Your task to perform on an android device: open app "Pandora - Music & Podcasts" (install if not already installed) and go to login screen Image 0: 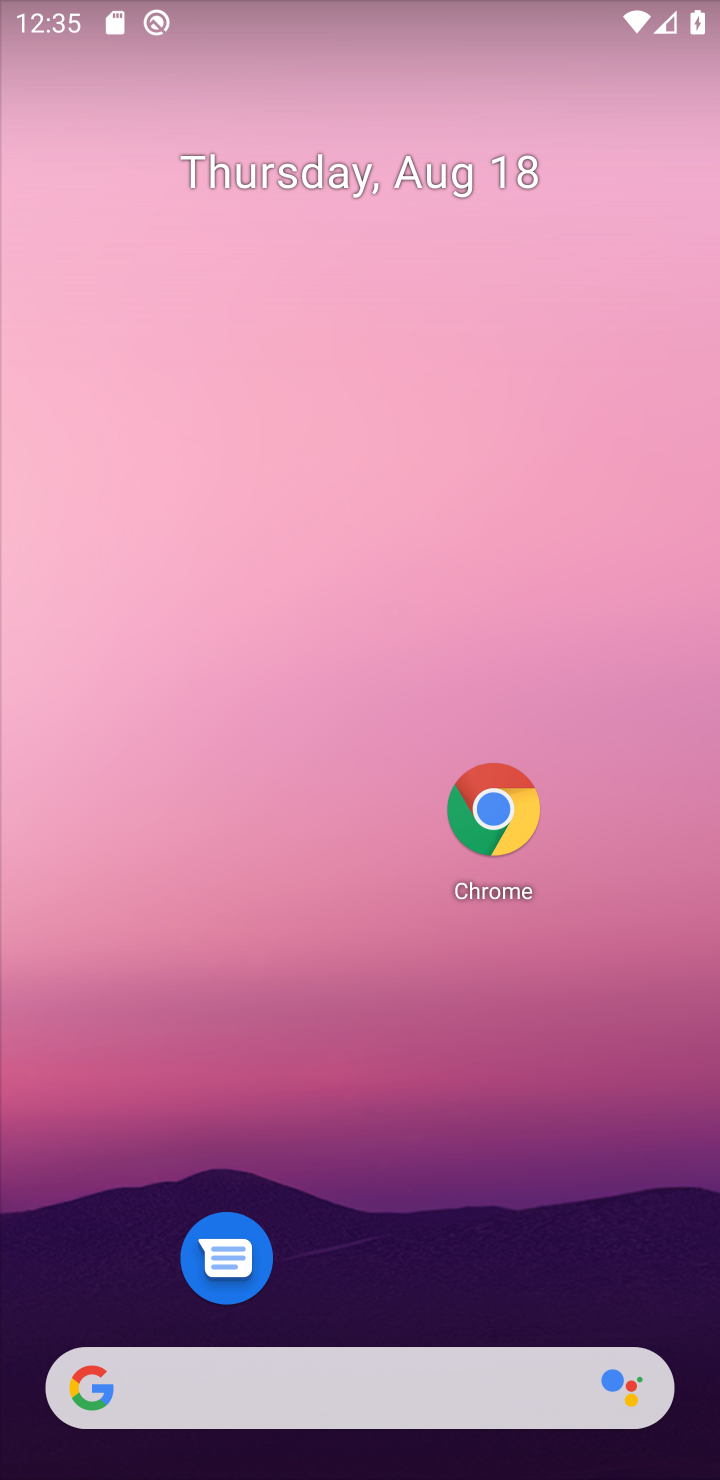
Step 0: drag from (346, 1355) to (341, 496)
Your task to perform on an android device: open app "Pandora - Music & Podcasts" (install if not already installed) and go to login screen Image 1: 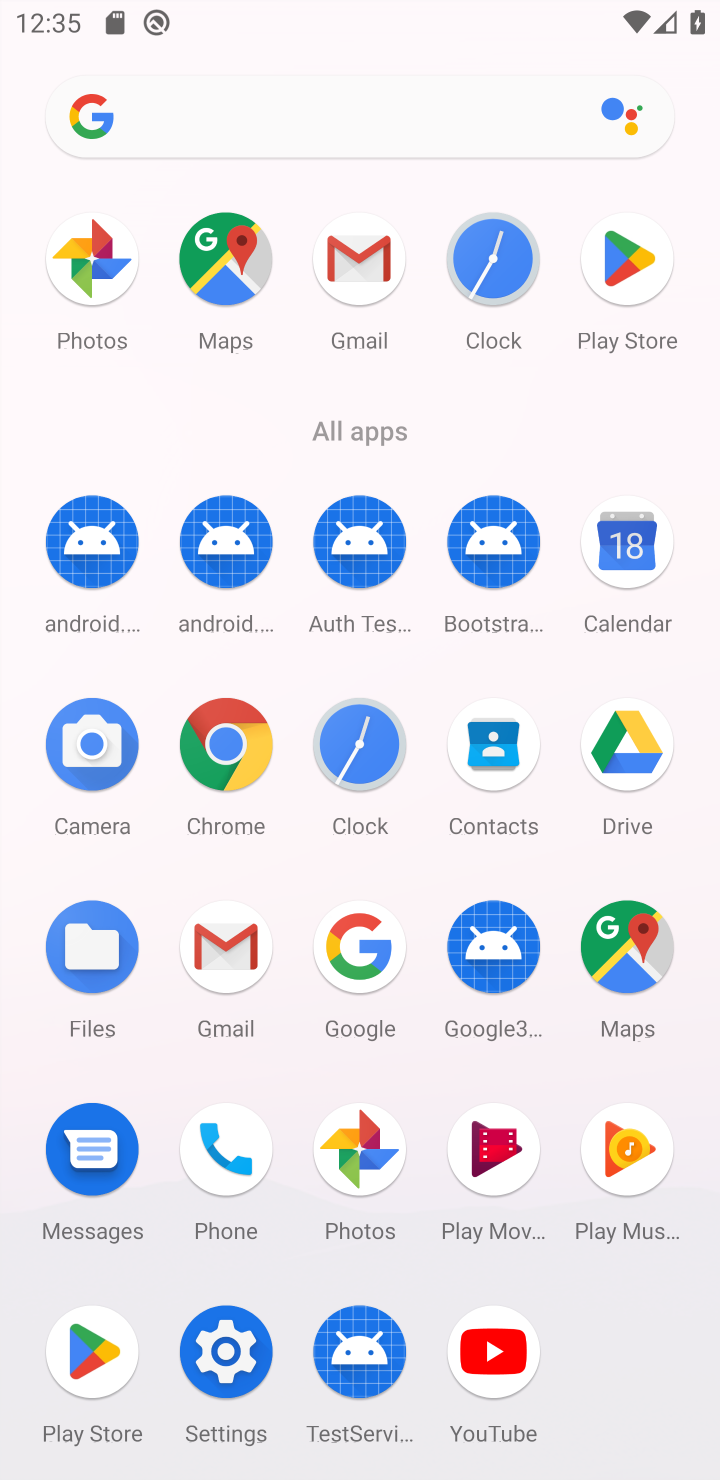
Step 1: click (603, 259)
Your task to perform on an android device: open app "Pandora - Music & Podcasts" (install if not already installed) and go to login screen Image 2: 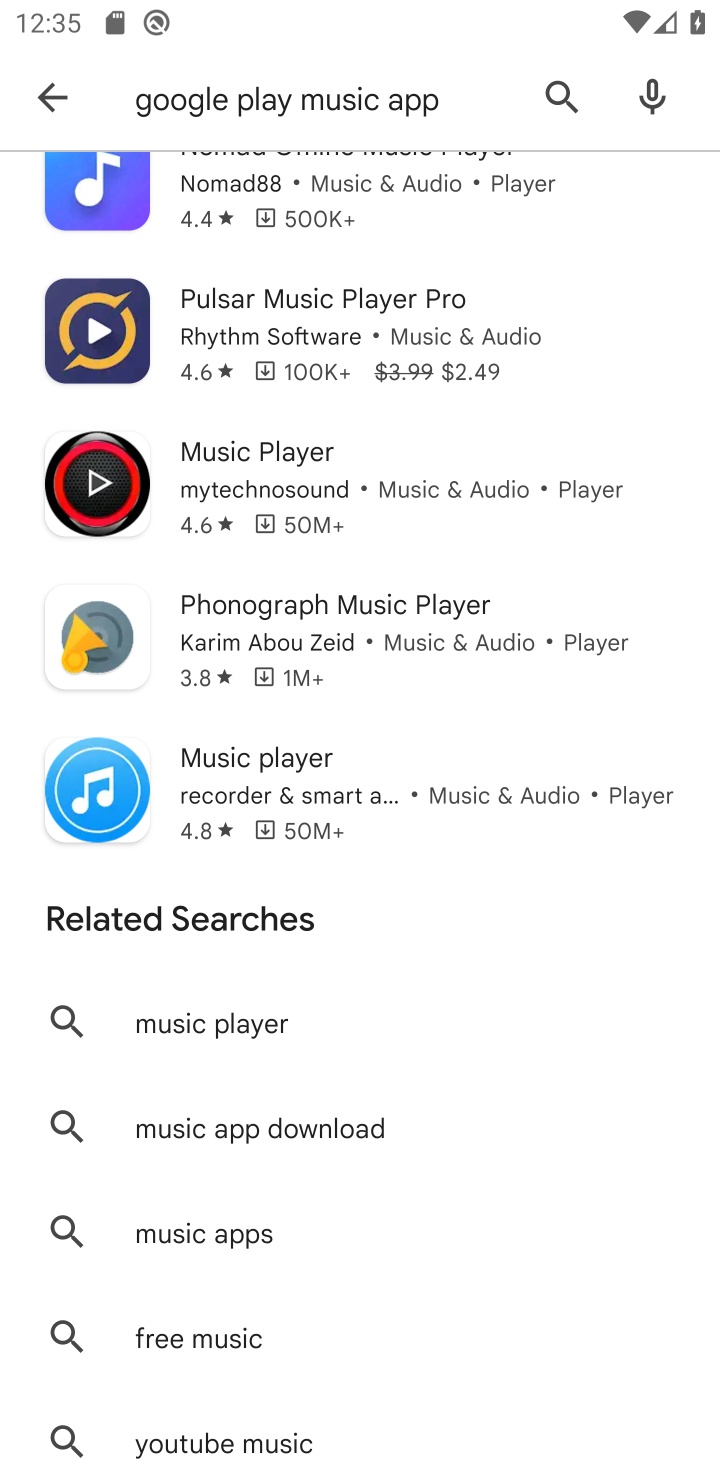
Step 2: click (41, 96)
Your task to perform on an android device: open app "Pandora - Music & Podcasts" (install if not already installed) and go to login screen Image 3: 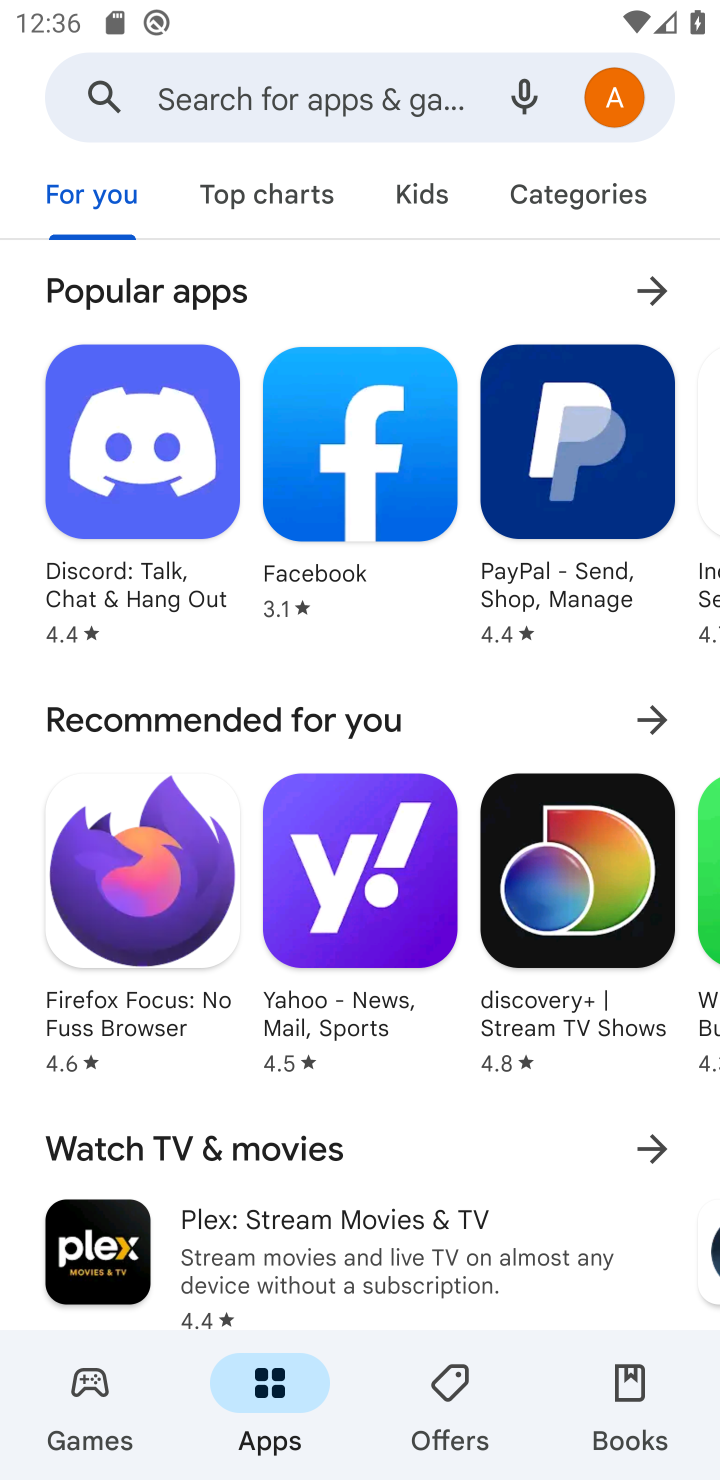
Step 3: click (279, 101)
Your task to perform on an android device: open app "Pandora - Music & Podcasts" (install if not already installed) and go to login screen Image 4: 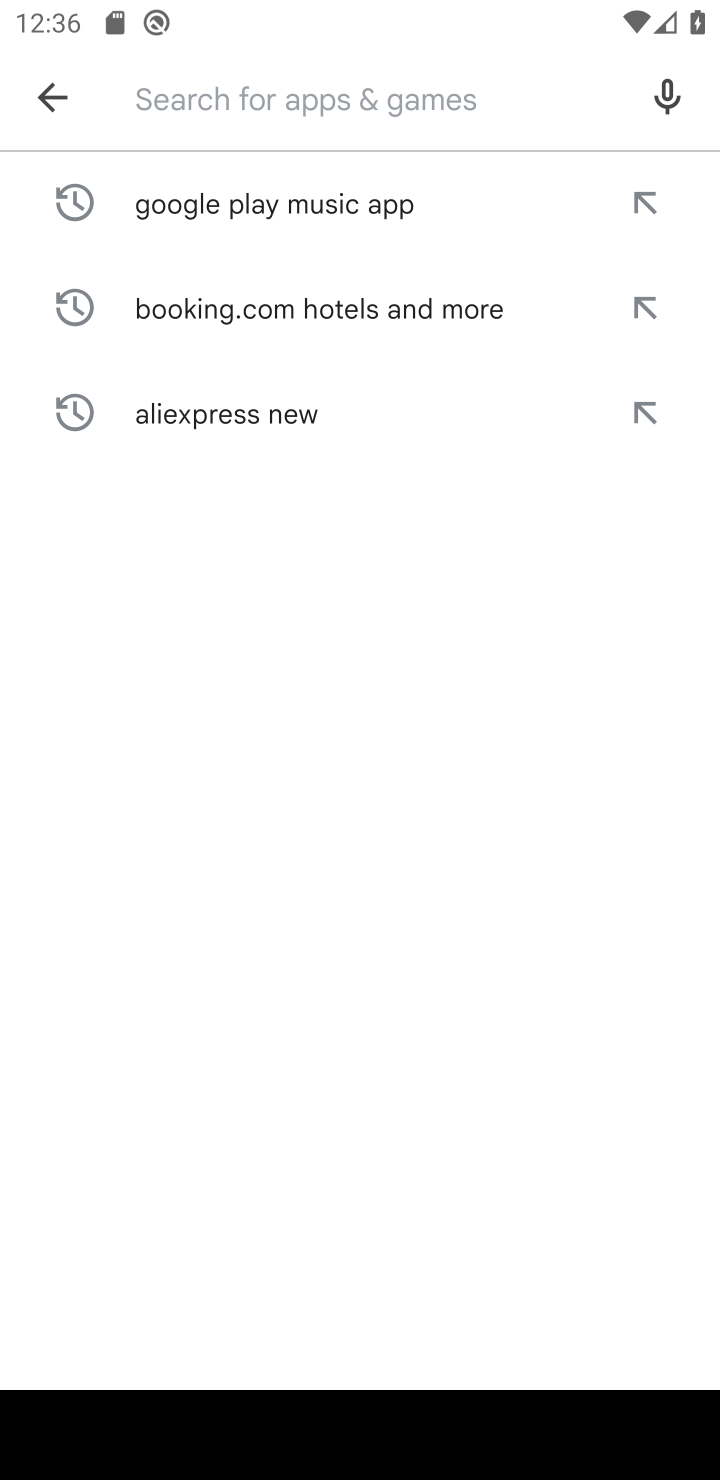
Step 4: type "Pandora - Music & Podcasts "
Your task to perform on an android device: open app "Pandora - Music & Podcasts" (install if not already installed) and go to login screen Image 5: 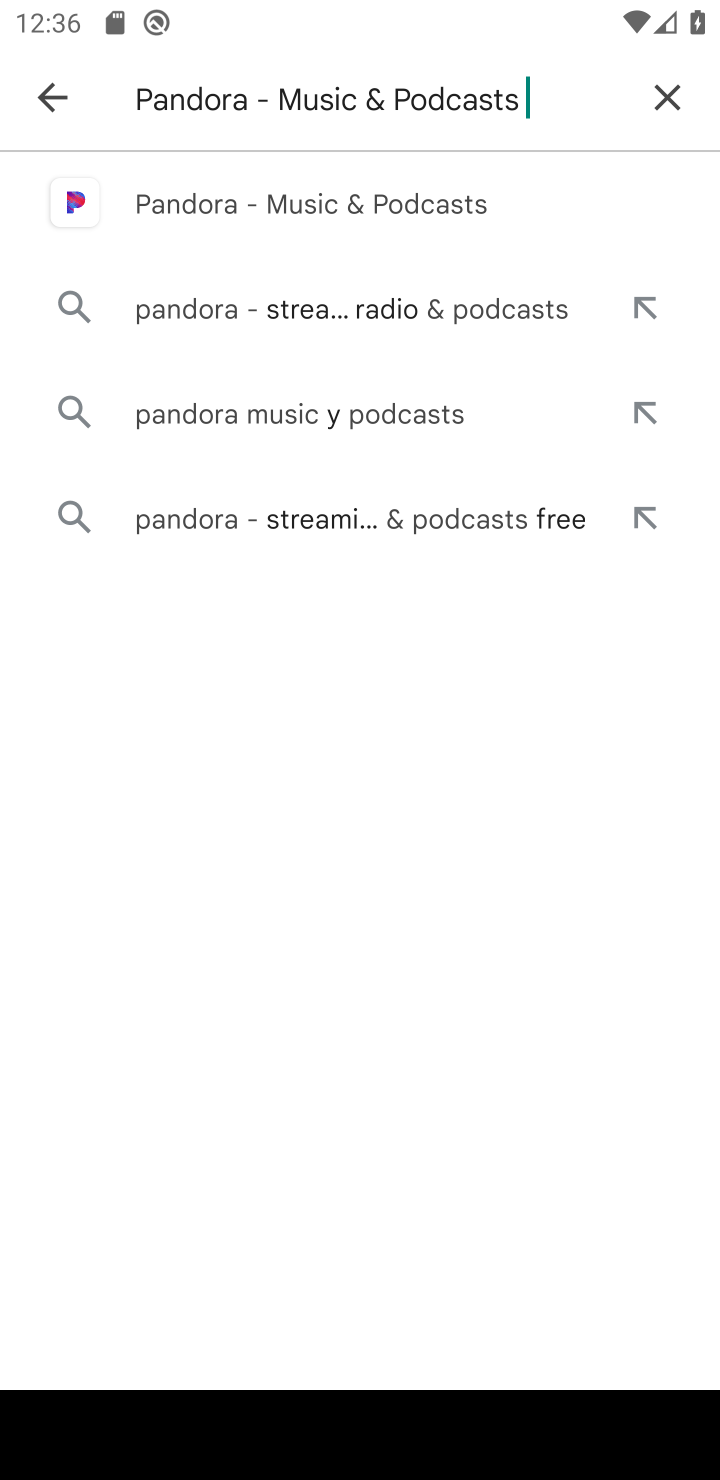
Step 5: click (210, 210)
Your task to perform on an android device: open app "Pandora - Music & Podcasts" (install if not already installed) and go to login screen Image 6: 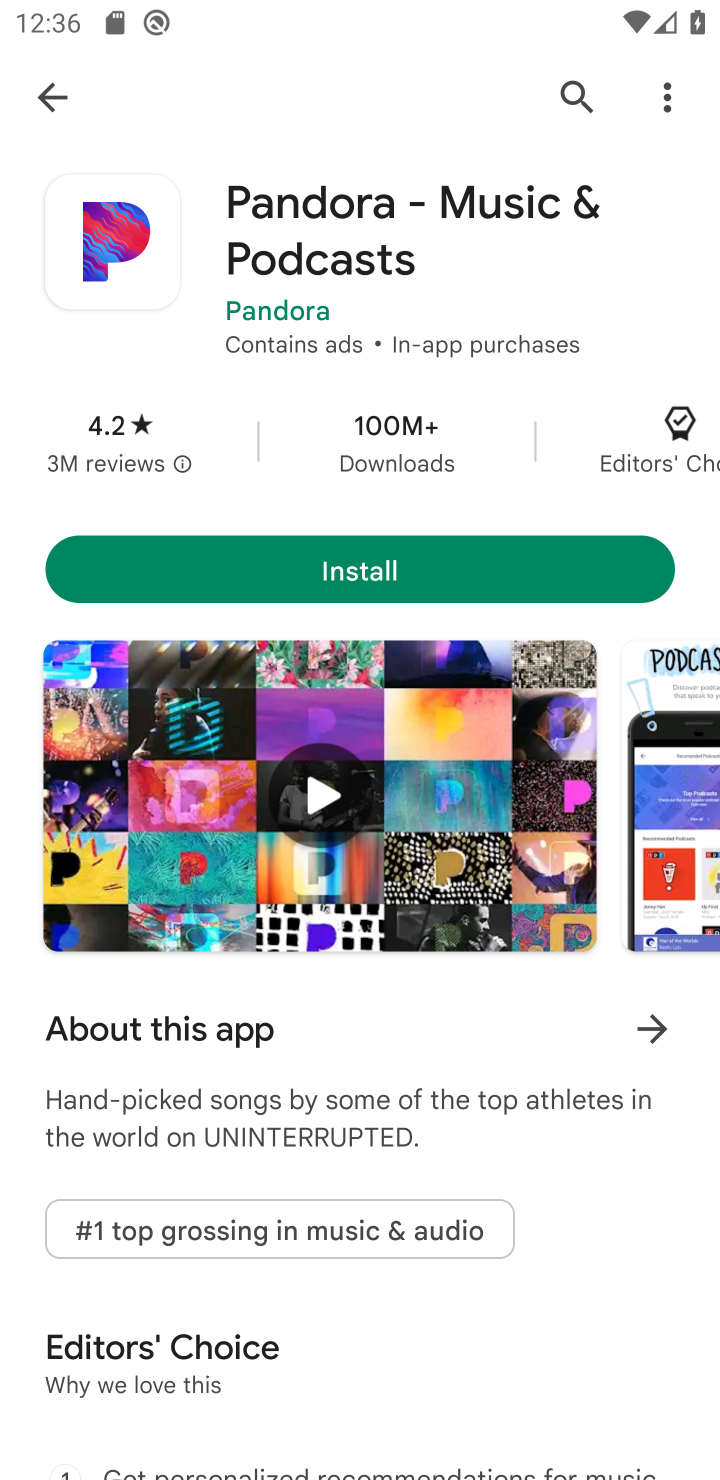
Step 6: click (354, 560)
Your task to perform on an android device: open app "Pandora - Music & Podcasts" (install if not already installed) and go to login screen Image 7: 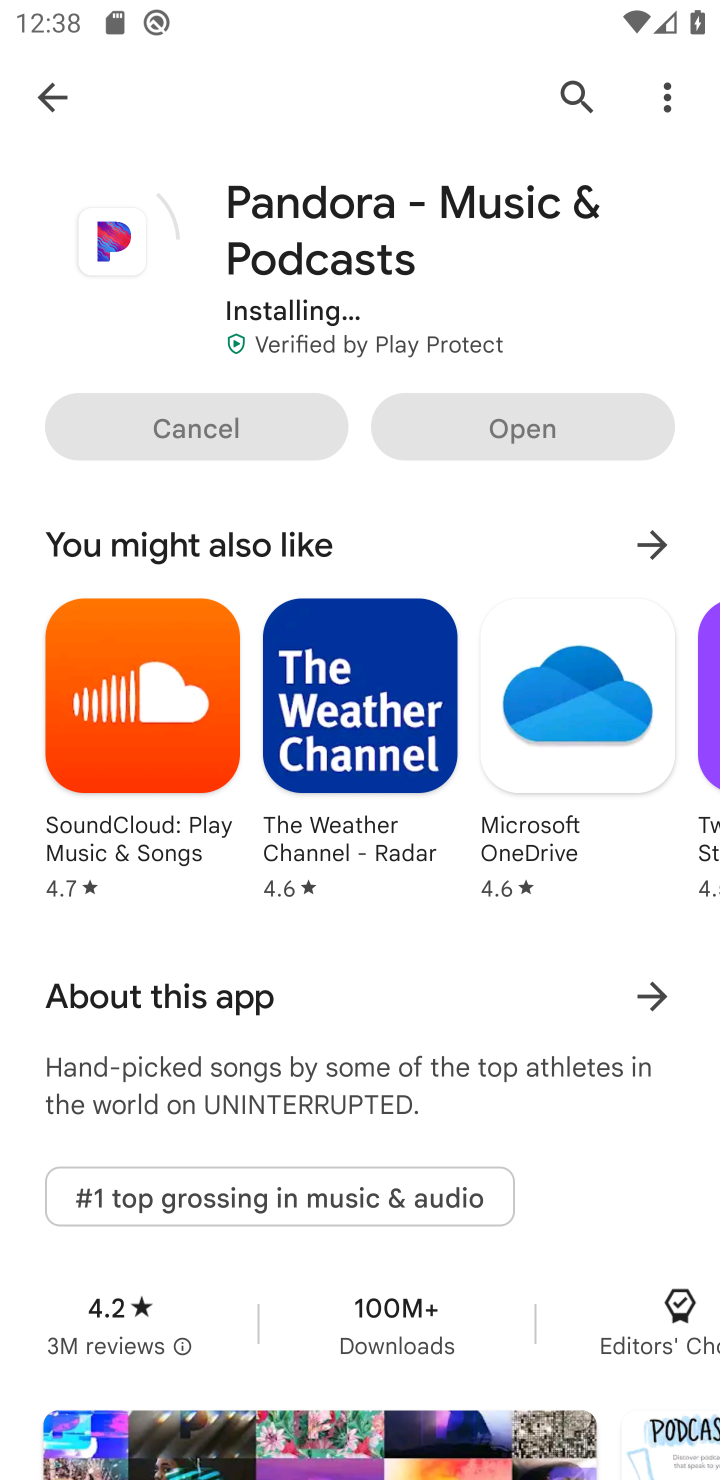
Step 7: click (508, 431)
Your task to perform on an android device: open app "Pandora - Music & Podcasts" (install if not already installed) and go to login screen Image 8: 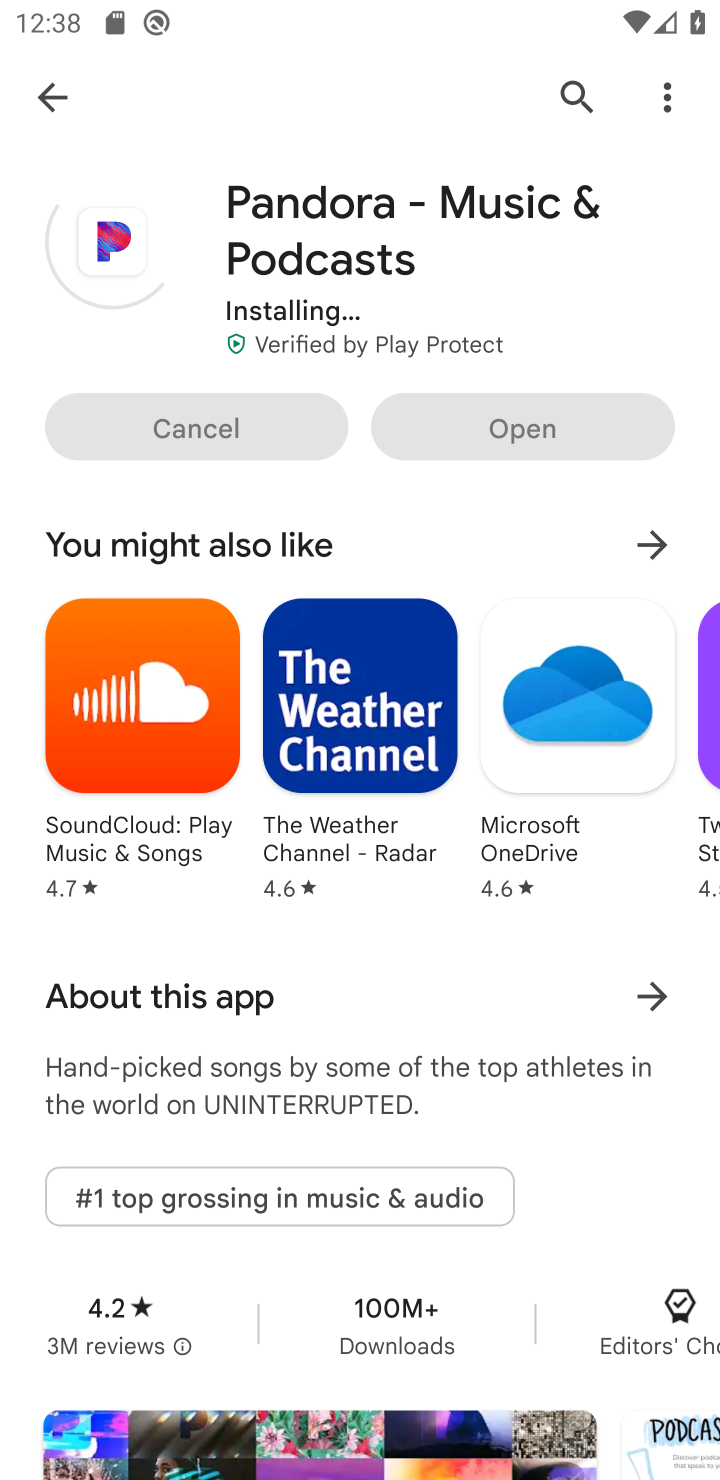
Step 8: task complete